Your task to perform on an android device: delete a single message in the gmail app Image 0: 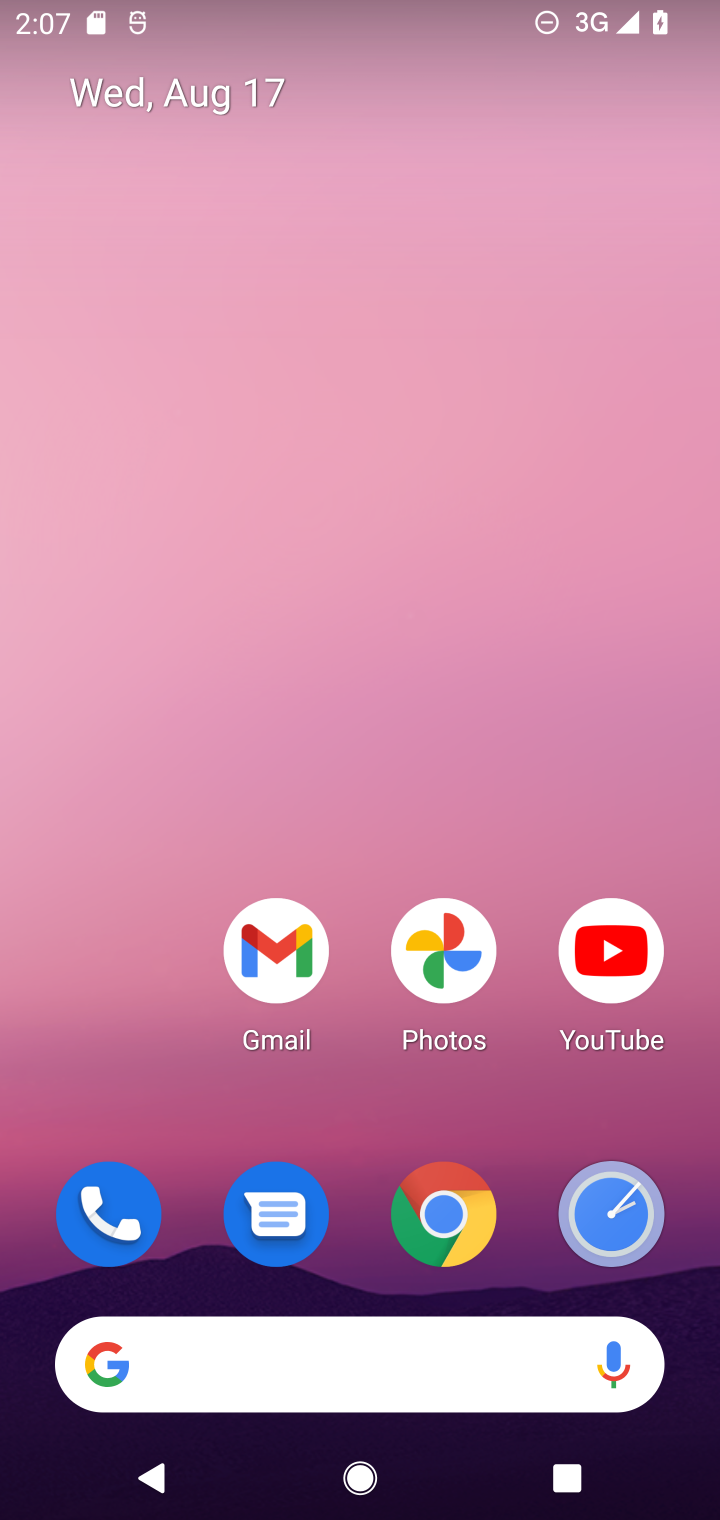
Step 0: click (270, 955)
Your task to perform on an android device: delete a single message in the gmail app Image 1: 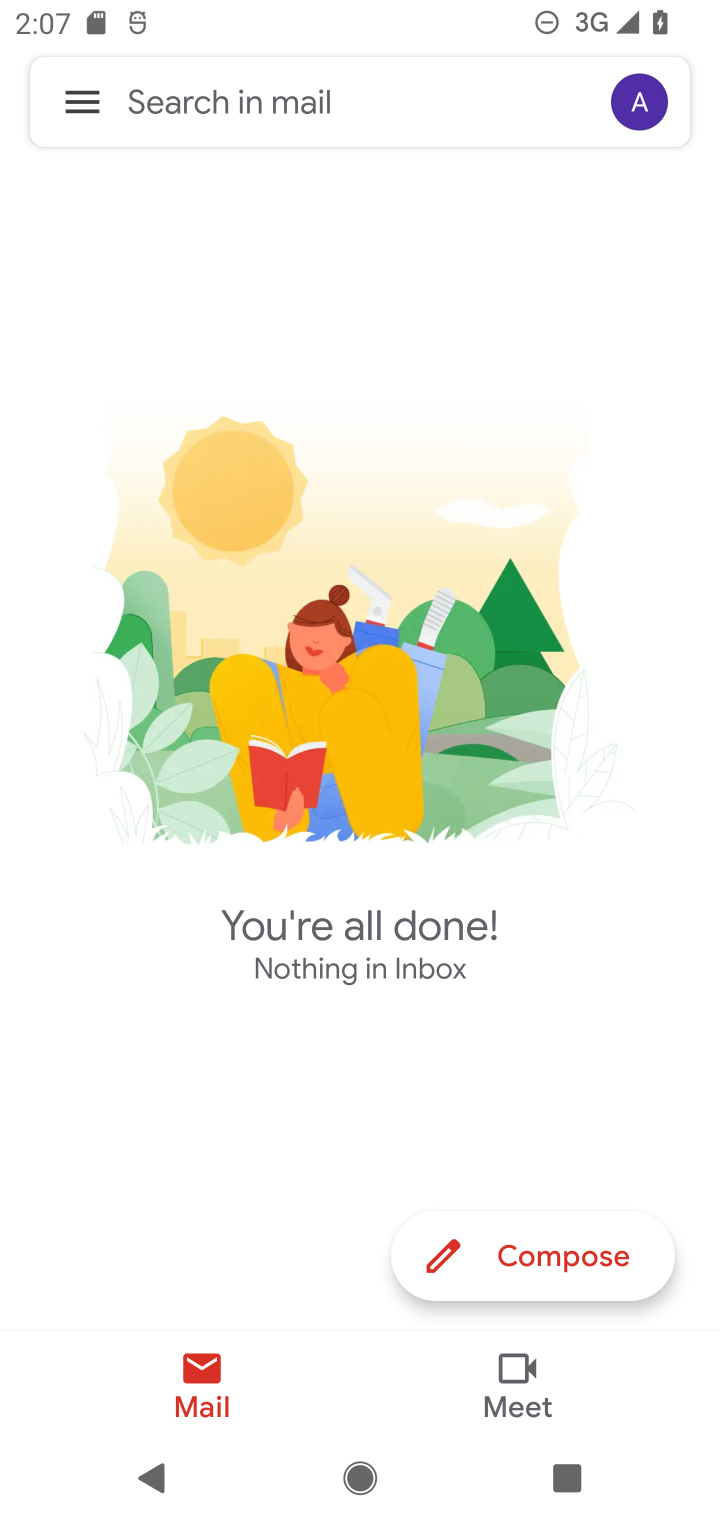
Step 1: click (82, 107)
Your task to perform on an android device: delete a single message in the gmail app Image 2: 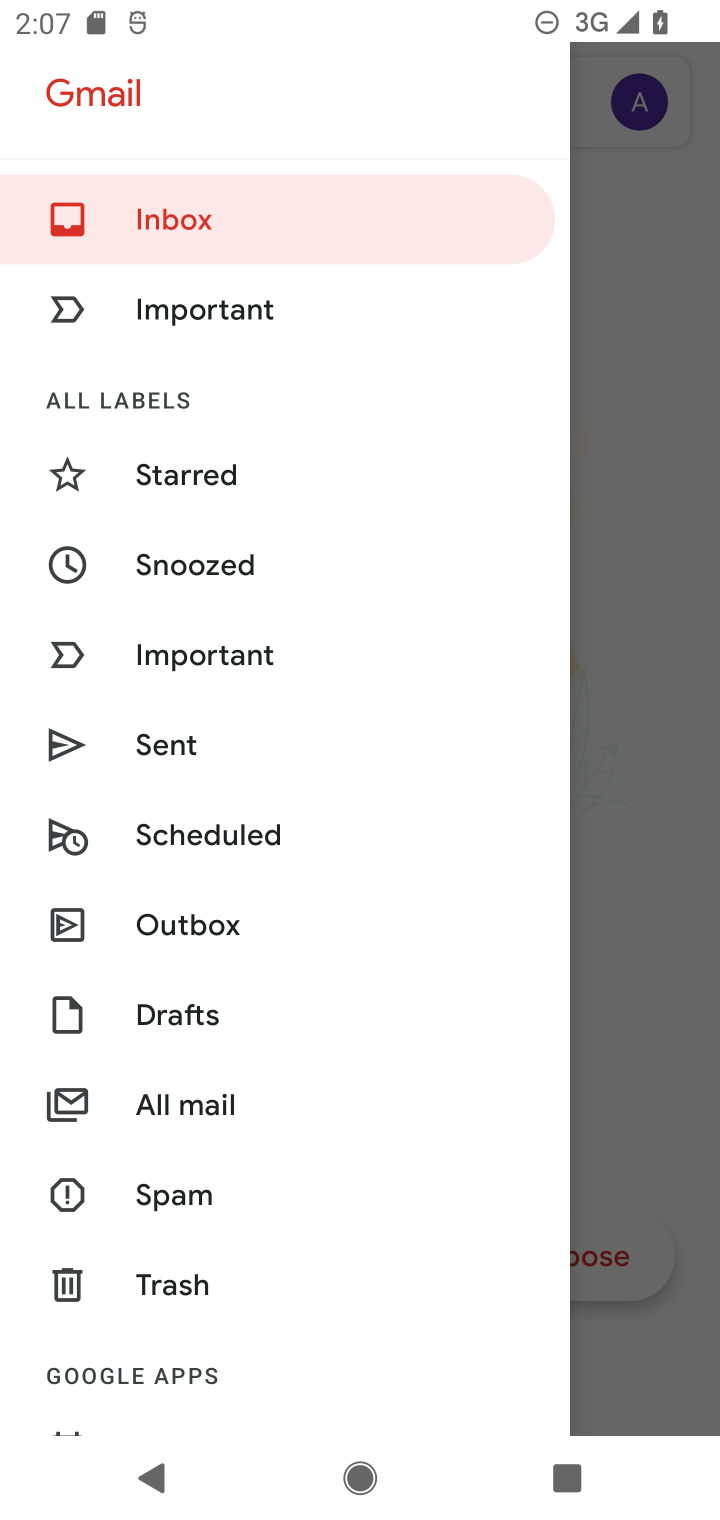
Step 2: click (183, 1104)
Your task to perform on an android device: delete a single message in the gmail app Image 3: 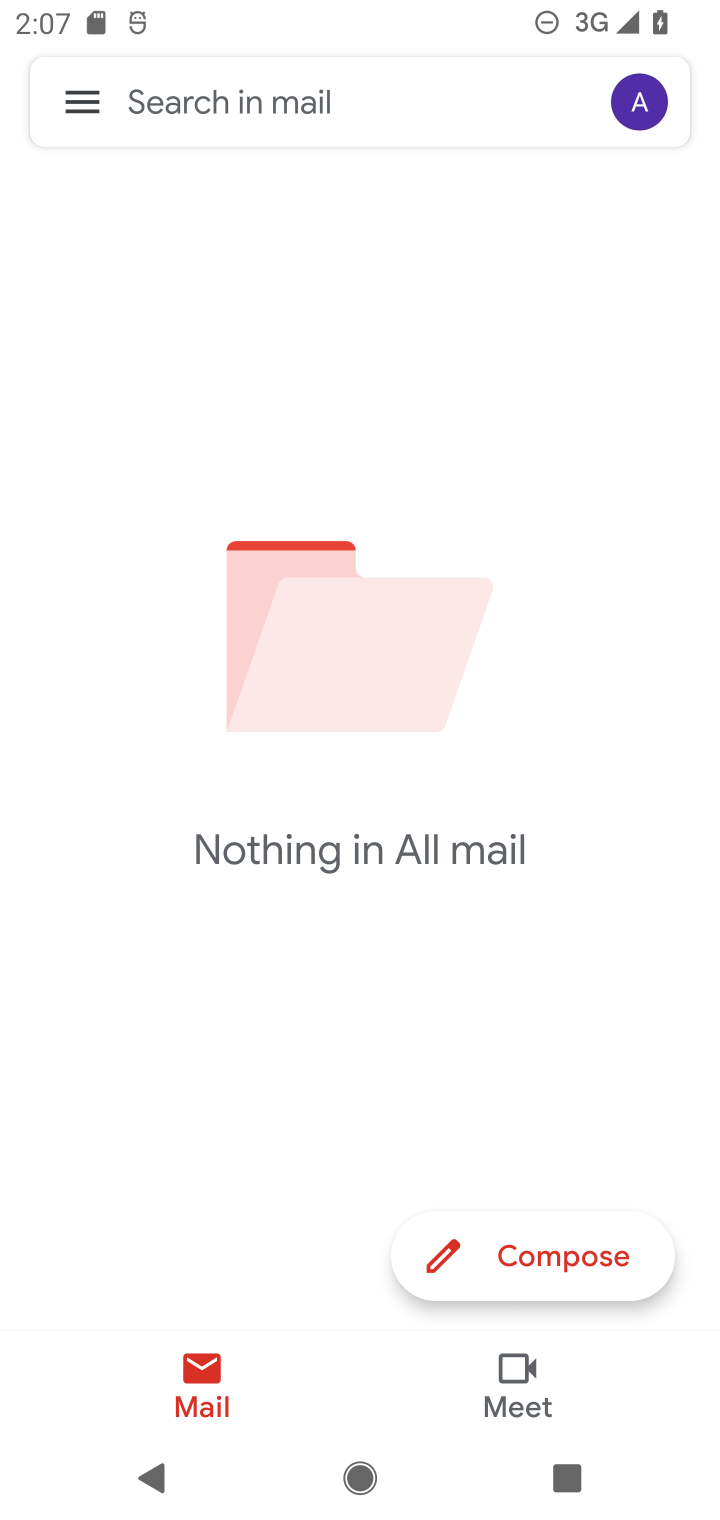
Step 3: task complete